Your task to perform on an android device: See recent photos Image 0: 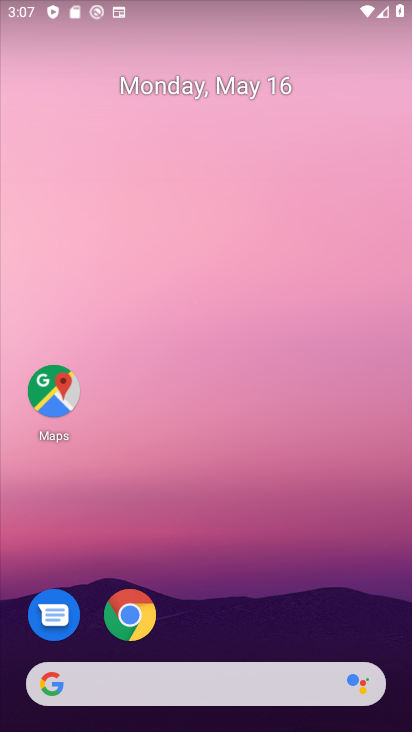
Step 0: drag from (232, 592) to (254, 68)
Your task to perform on an android device: See recent photos Image 1: 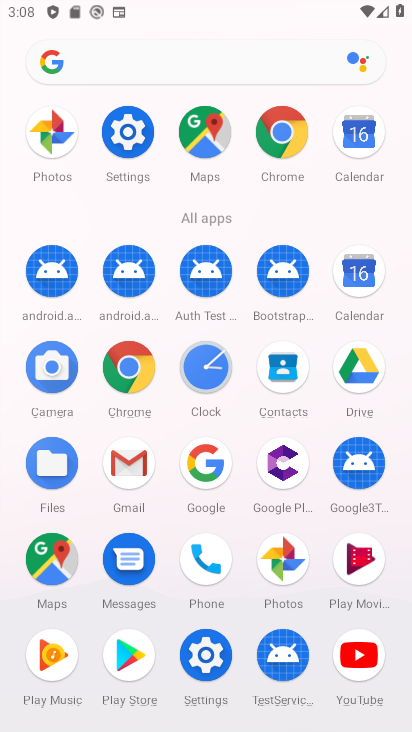
Step 1: click (50, 114)
Your task to perform on an android device: See recent photos Image 2: 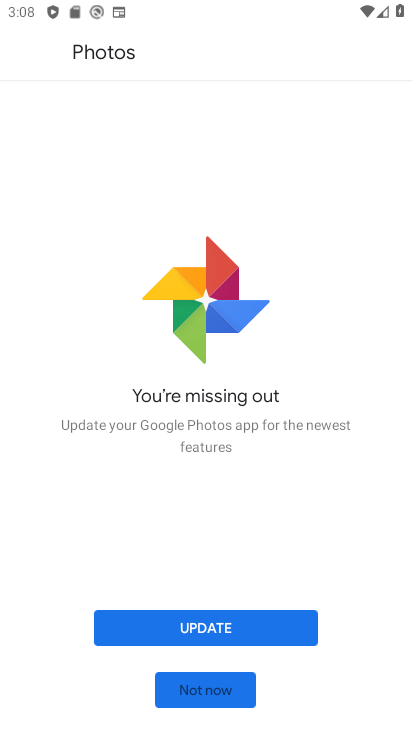
Step 2: click (195, 691)
Your task to perform on an android device: See recent photos Image 3: 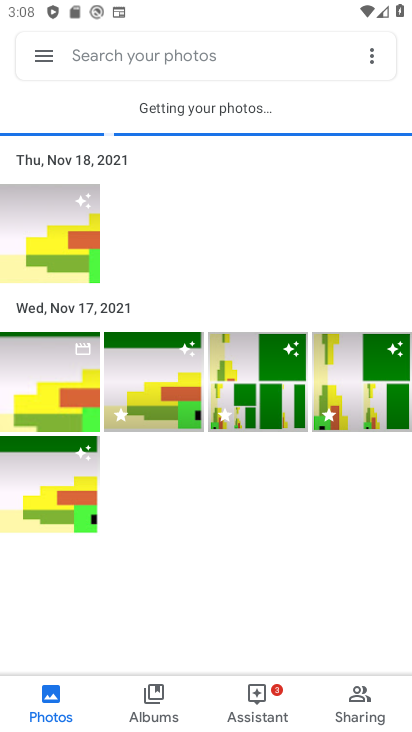
Step 3: task complete